Your task to perform on an android device: open sync settings in chrome Image 0: 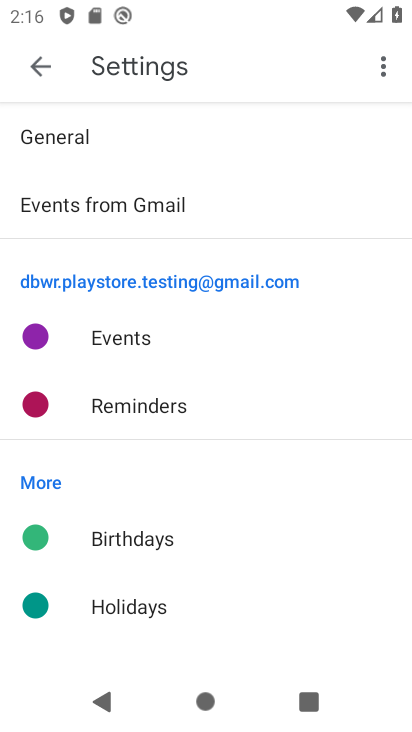
Step 0: press home button
Your task to perform on an android device: open sync settings in chrome Image 1: 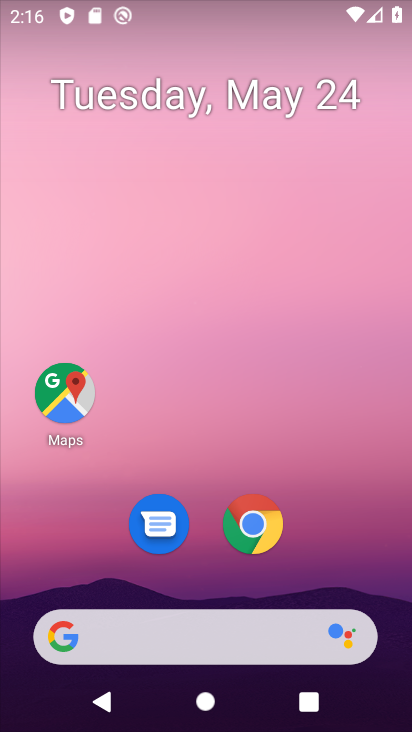
Step 1: click (246, 534)
Your task to perform on an android device: open sync settings in chrome Image 2: 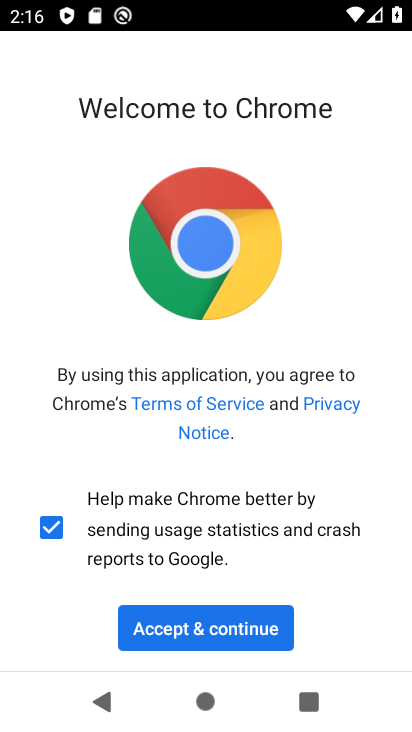
Step 2: click (259, 632)
Your task to perform on an android device: open sync settings in chrome Image 3: 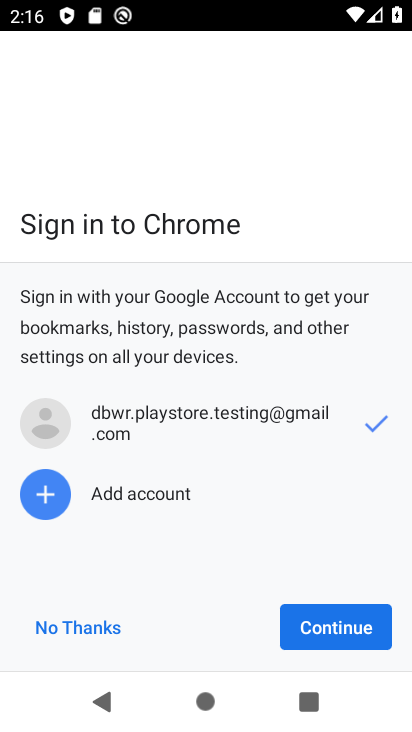
Step 3: click (311, 623)
Your task to perform on an android device: open sync settings in chrome Image 4: 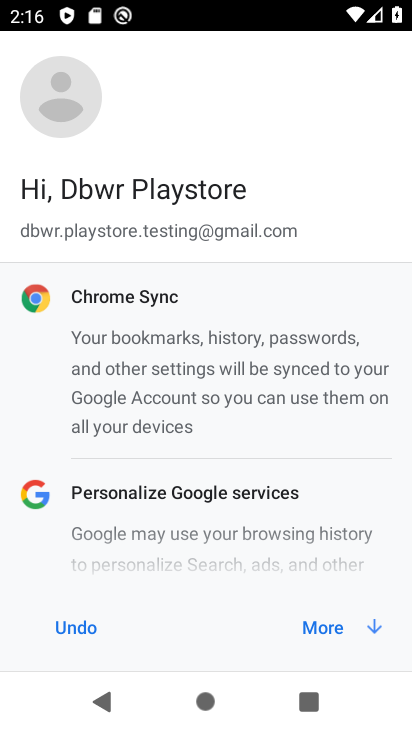
Step 4: click (314, 626)
Your task to perform on an android device: open sync settings in chrome Image 5: 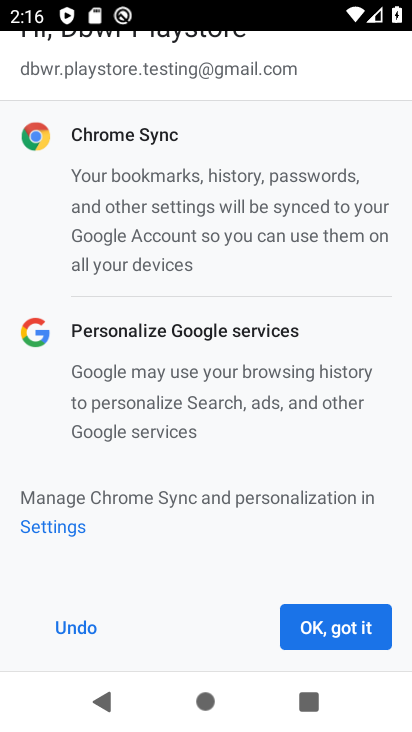
Step 5: click (317, 627)
Your task to perform on an android device: open sync settings in chrome Image 6: 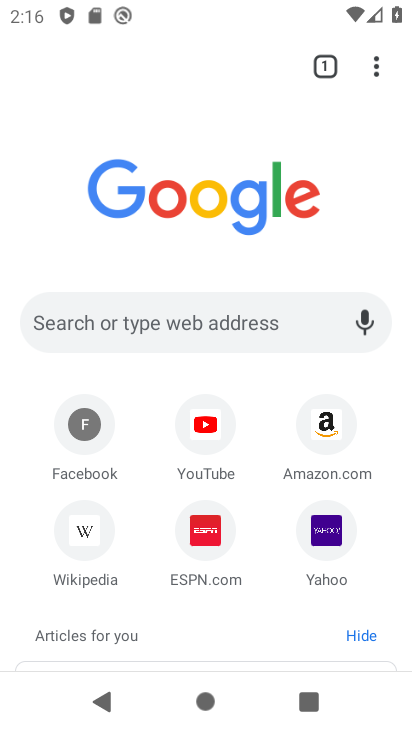
Step 6: click (369, 62)
Your task to perform on an android device: open sync settings in chrome Image 7: 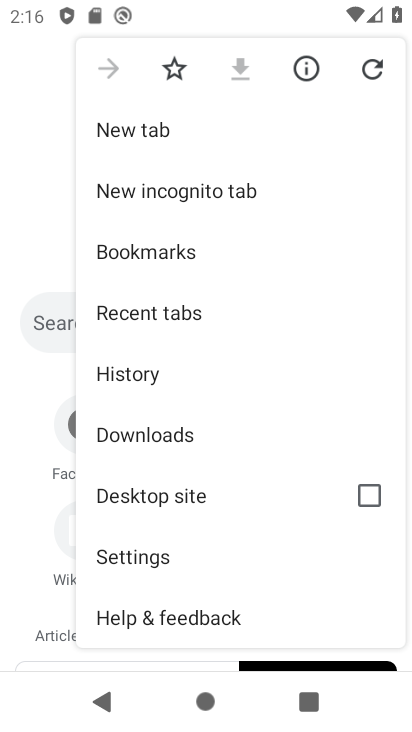
Step 7: click (168, 554)
Your task to perform on an android device: open sync settings in chrome Image 8: 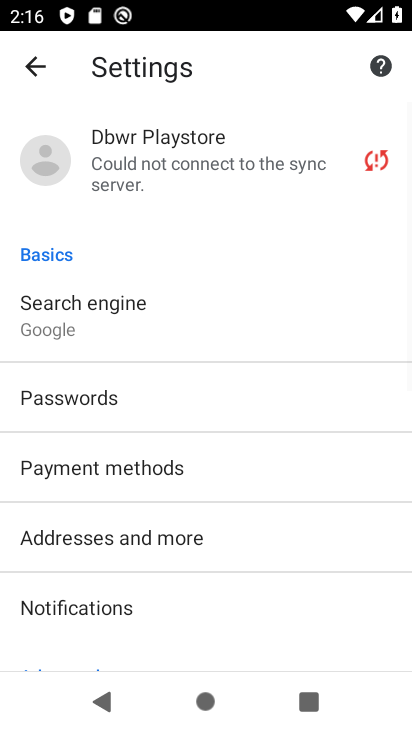
Step 8: drag from (226, 496) to (293, 229)
Your task to perform on an android device: open sync settings in chrome Image 9: 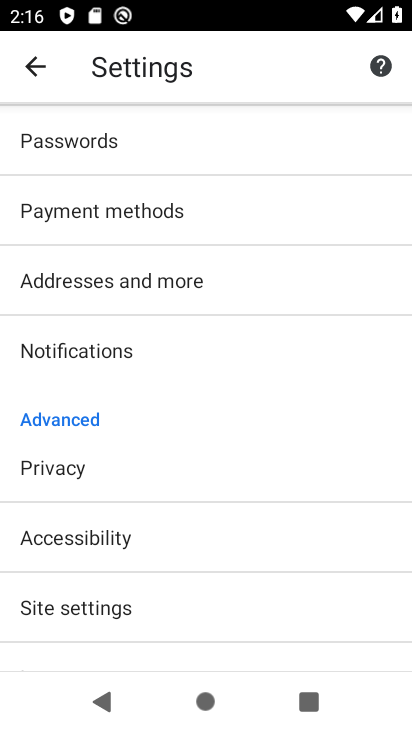
Step 9: drag from (293, 231) to (249, 663)
Your task to perform on an android device: open sync settings in chrome Image 10: 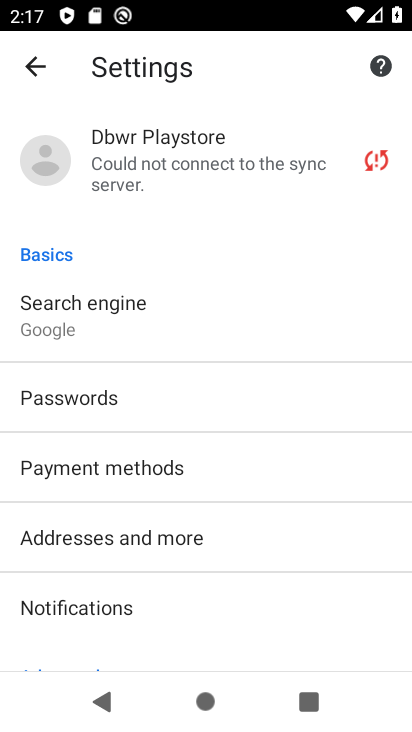
Step 10: click (227, 164)
Your task to perform on an android device: open sync settings in chrome Image 11: 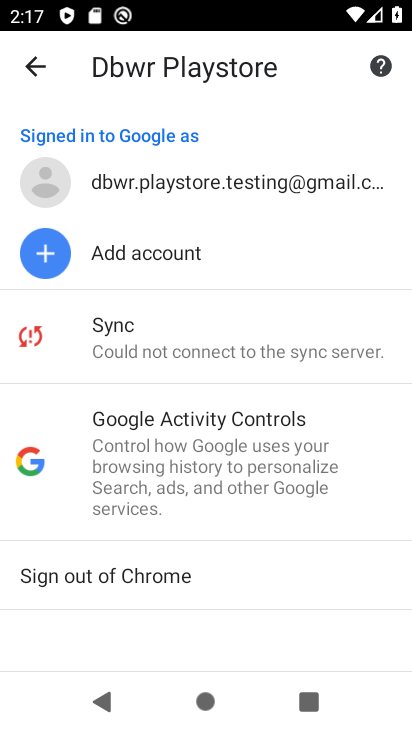
Step 11: click (169, 331)
Your task to perform on an android device: open sync settings in chrome Image 12: 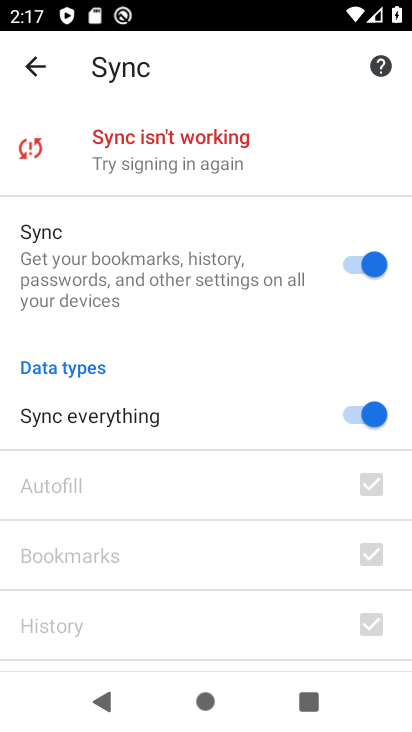
Step 12: task complete